Your task to perform on an android device: Open Chrome and go to settings Image 0: 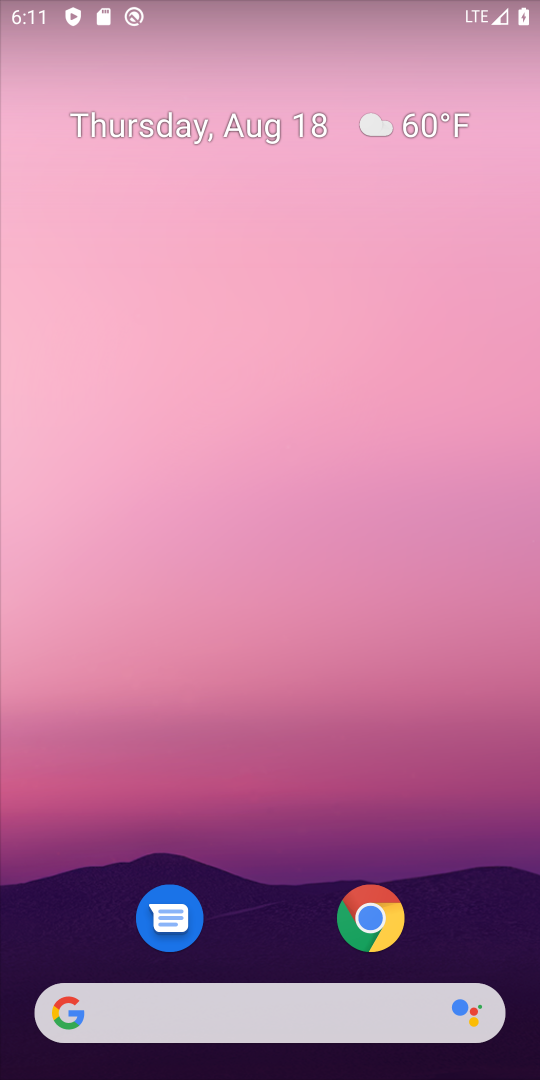
Step 0: press home button
Your task to perform on an android device: Open Chrome and go to settings Image 1: 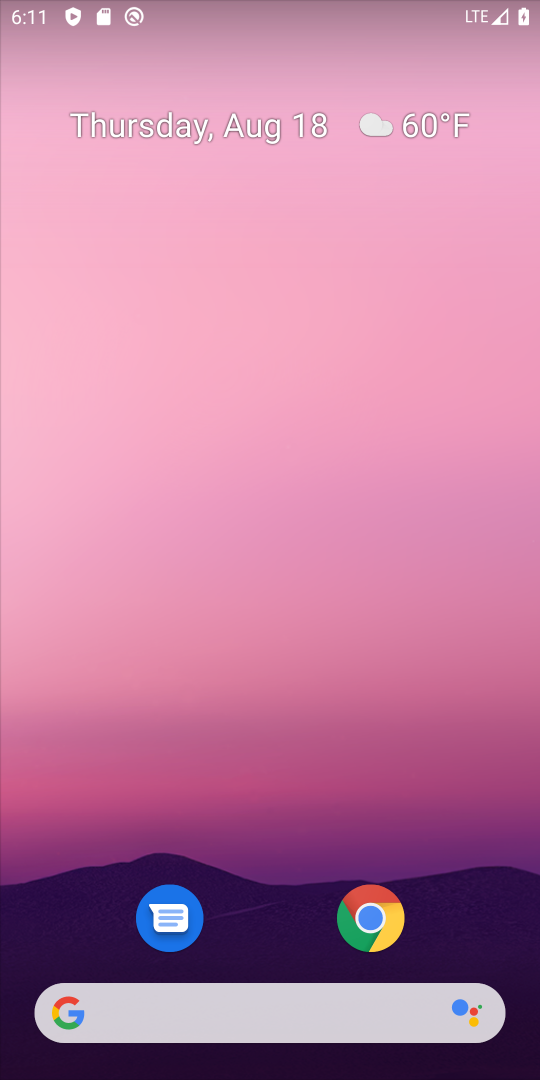
Step 1: click (365, 922)
Your task to perform on an android device: Open Chrome and go to settings Image 2: 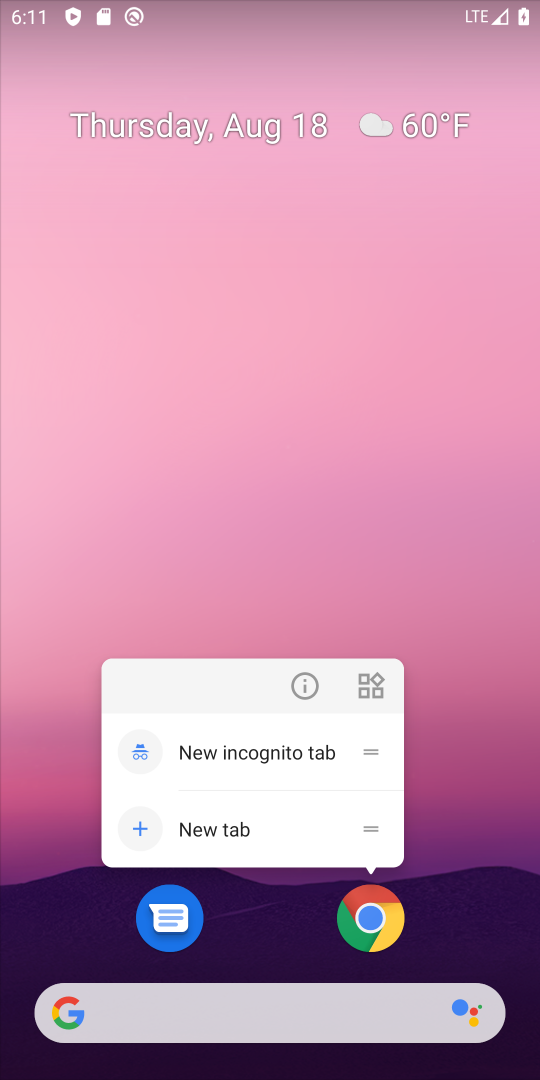
Step 2: click (372, 923)
Your task to perform on an android device: Open Chrome and go to settings Image 3: 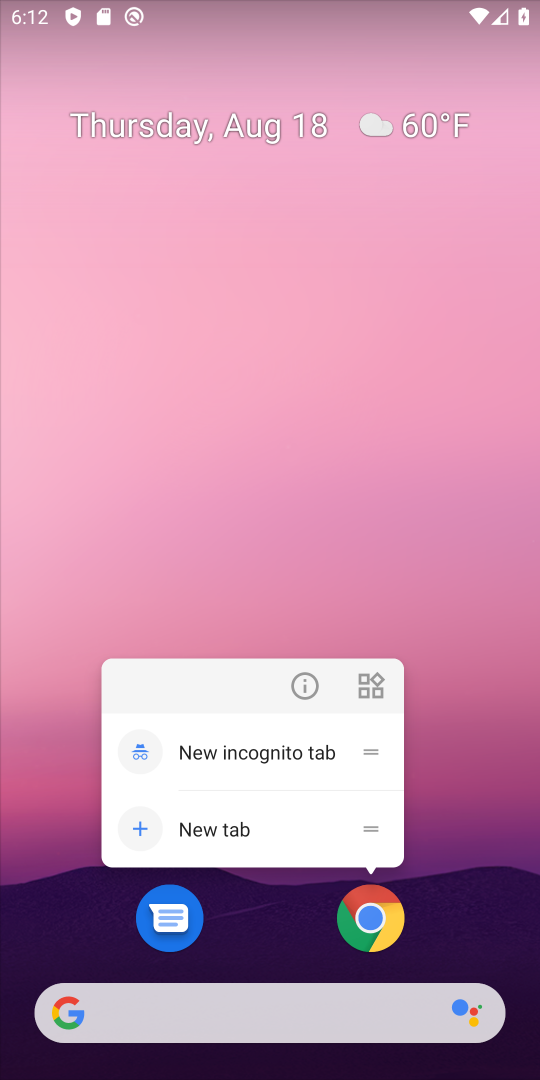
Step 3: click (372, 923)
Your task to perform on an android device: Open Chrome and go to settings Image 4: 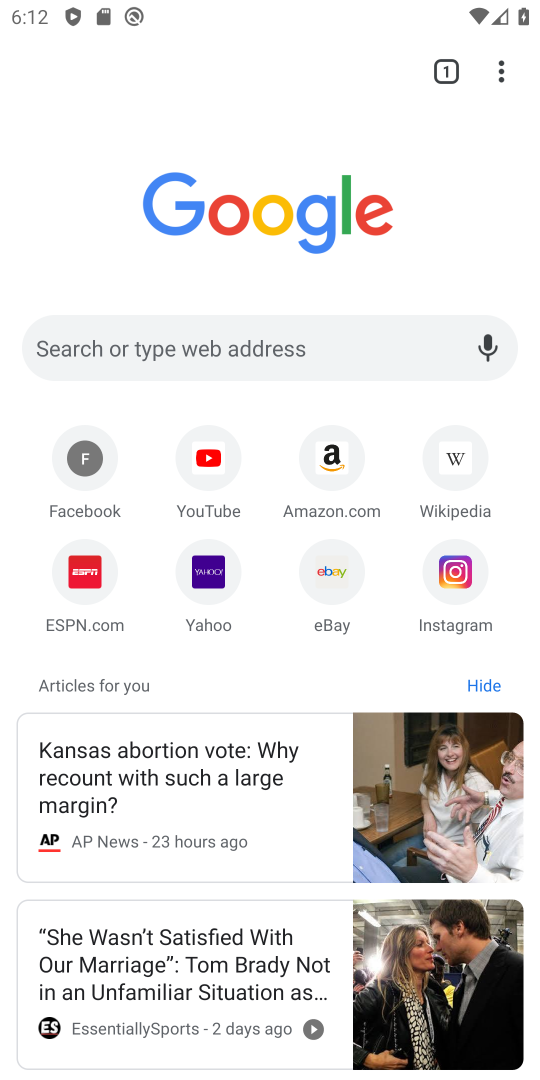
Step 4: task complete